Your task to perform on an android device: set the timer Image 0: 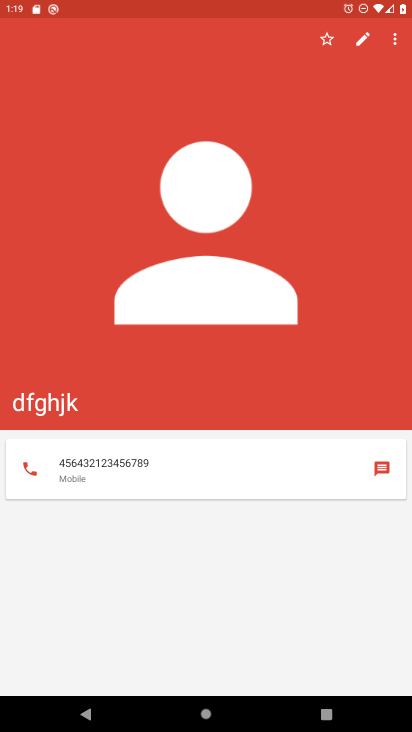
Step 0: press home button
Your task to perform on an android device: set the timer Image 1: 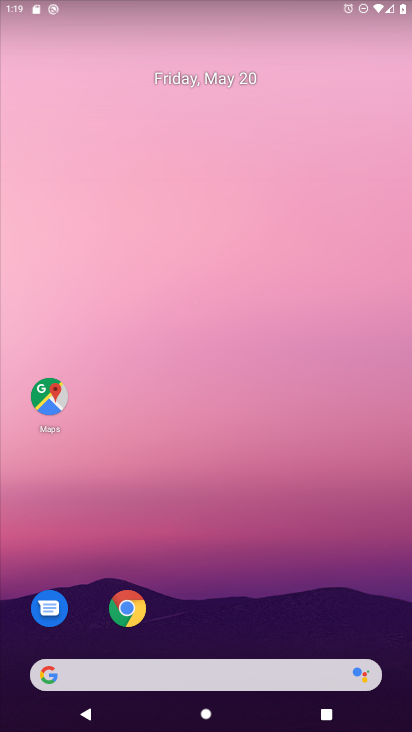
Step 1: drag from (278, 609) to (288, 23)
Your task to perform on an android device: set the timer Image 2: 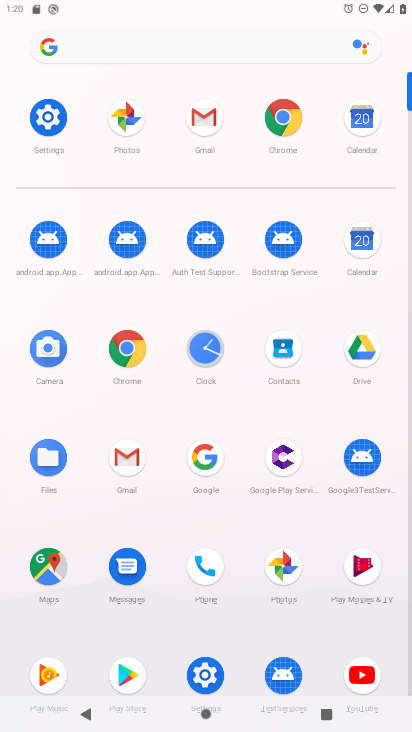
Step 2: click (209, 342)
Your task to perform on an android device: set the timer Image 3: 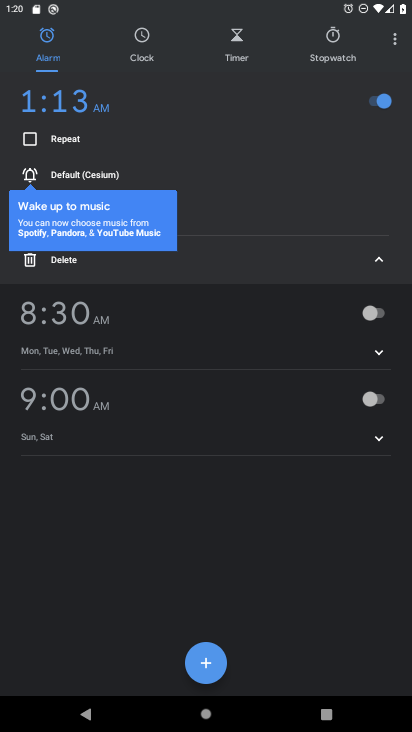
Step 3: click (226, 54)
Your task to perform on an android device: set the timer Image 4: 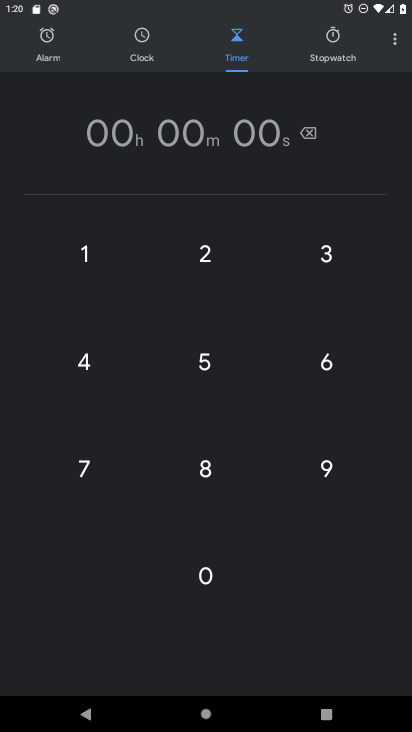
Step 4: click (201, 466)
Your task to perform on an android device: set the timer Image 5: 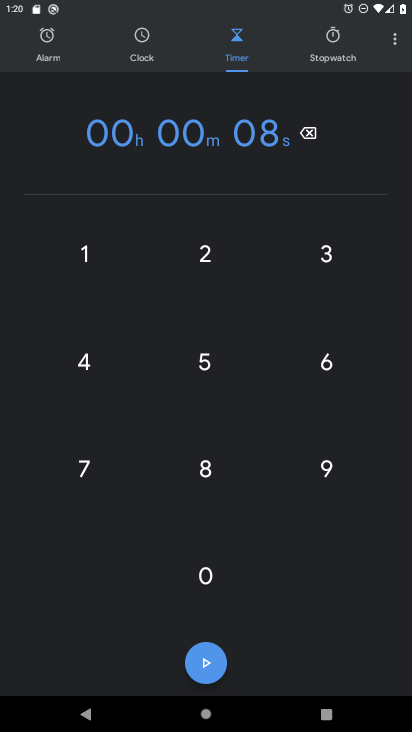
Step 5: click (207, 661)
Your task to perform on an android device: set the timer Image 6: 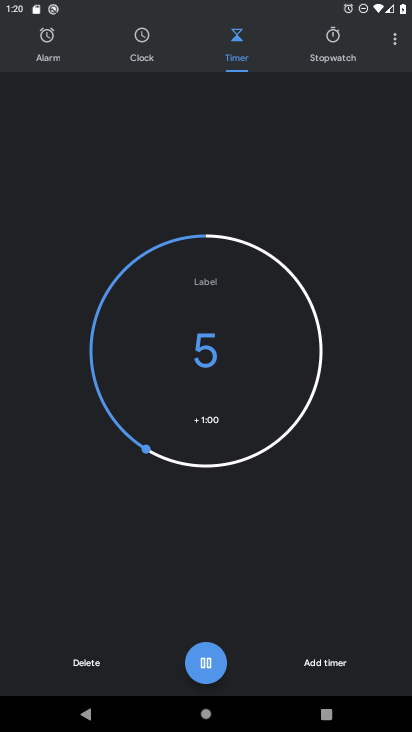
Step 6: task complete